Your task to perform on an android device: toggle notifications settings in the gmail app Image 0: 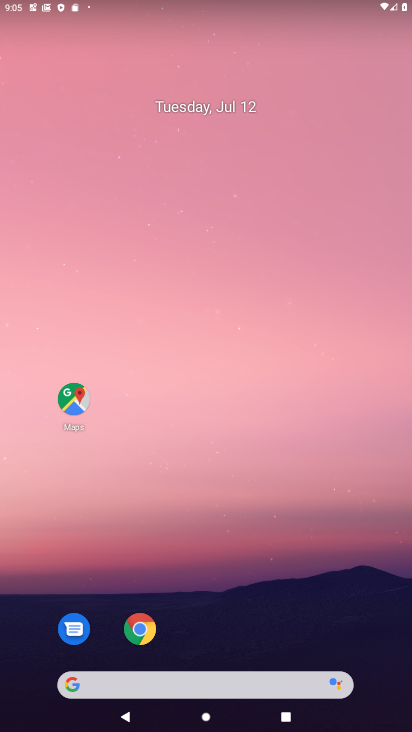
Step 0: drag from (202, 651) to (245, 178)
Your task to perform on an android device: toggle notifications settings in the gmail app Image 1: 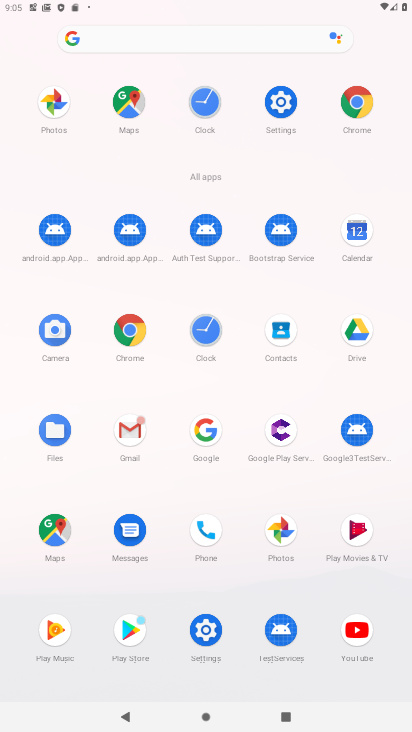
Step 1: click (132, 423)
Your task to perform on an android device: toggle notifications settings in the gmail app Image 2: 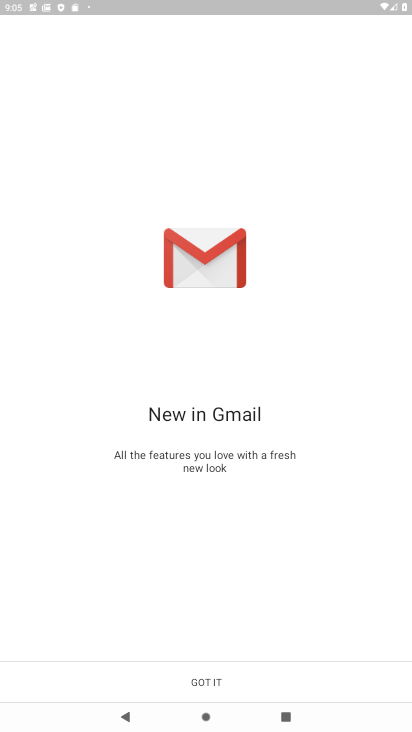
Step 2: click (203, 680)
Your task to perform on an android device: toggle notifications settings in the gmail app Image 3: 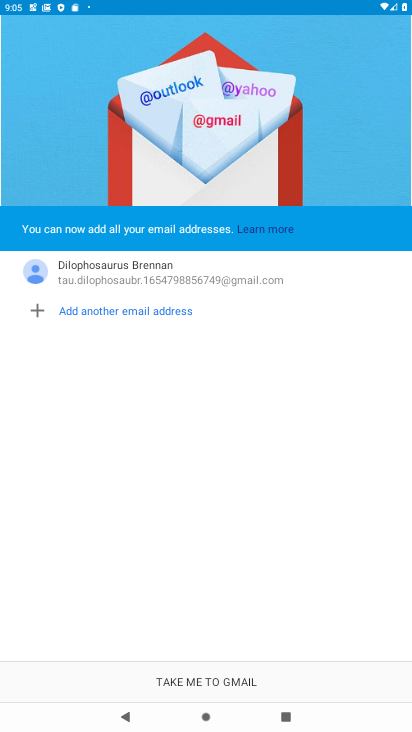
Step 3: click (203, 680)
Your task to perform on an android device: toggle notifications settings in the gmail app Image 4: 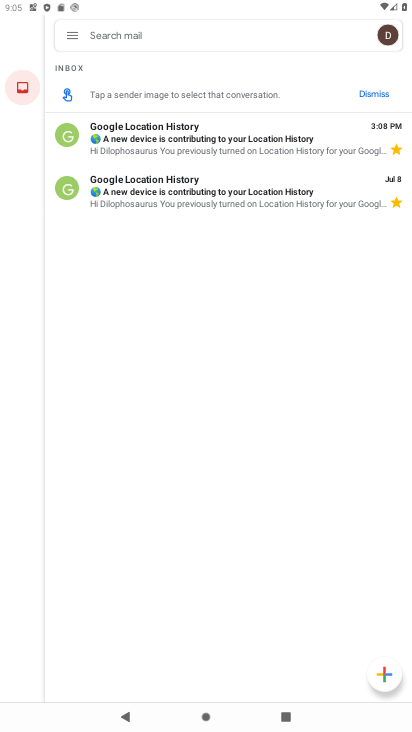
Step 4: click (75, 43)
Your task to perform on an android device: toggle notifications settings in the gmail app Image 5: 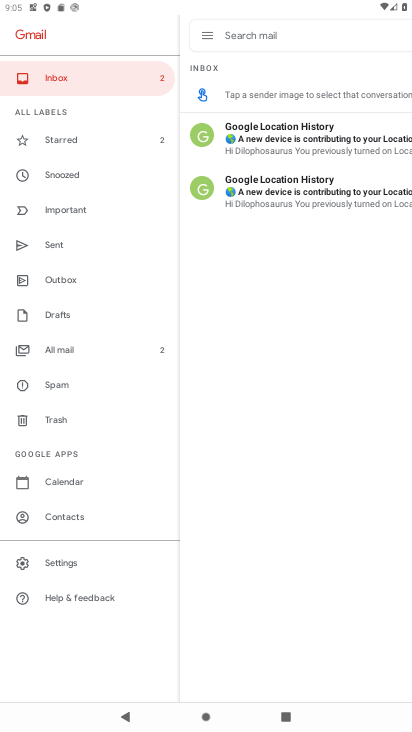
Step 5: click (62, 568)
Your task to perform on an android device: toggle notifications settings in the gmail app Image 6: 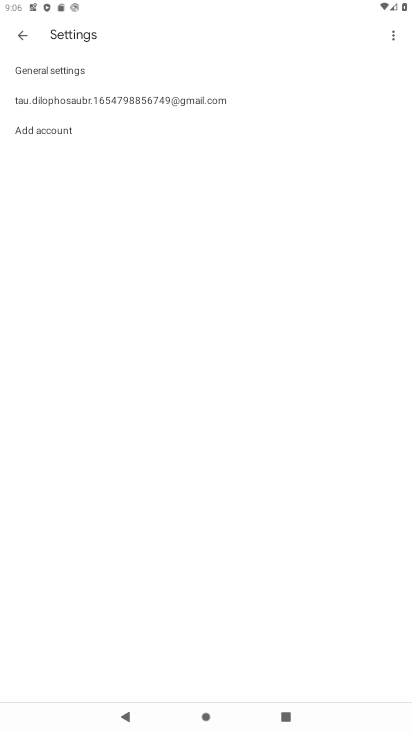
Step 6: click (200, 103)
Your task to perform on an android device: toggle notifications settings in the gmail app Image 7: 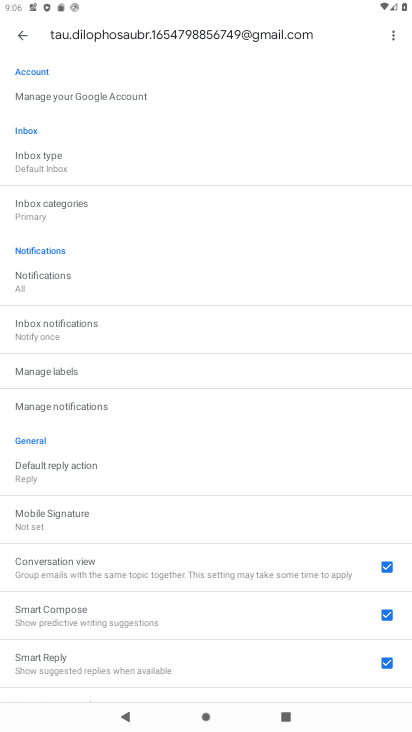
Step 7: click (97, 408)
Your task to perform on an android device: toggle notifications settings in the gmail app Image 8: 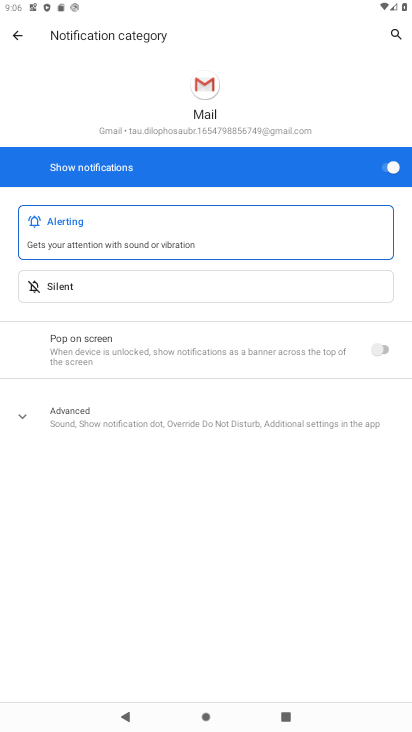
Step 8: click (387, 160)
Your task to perform on an android device: toggle notifications settings in the gmail app Image 9: 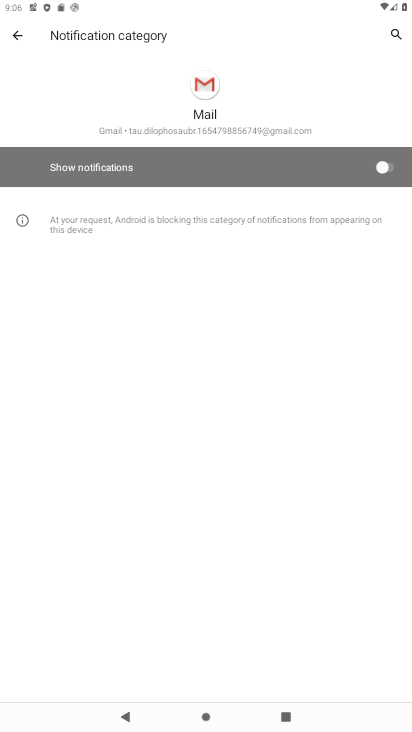
Step 9: task complete